Your task to perform on an android device: set default search engine in the chrome app Image 0: 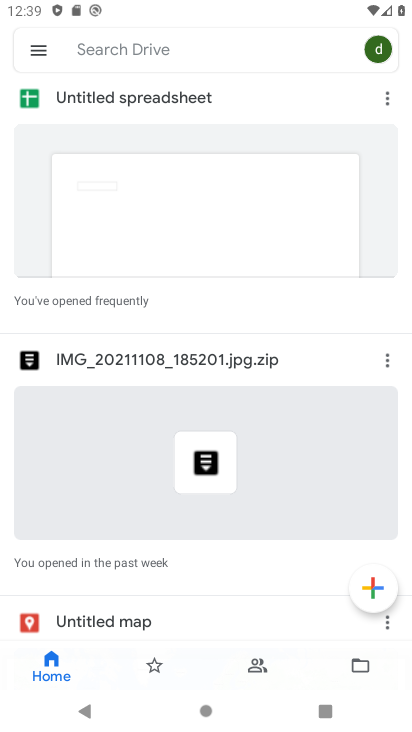
Step 0: press back button
Your task to perform on an android device: set default search engine in the chrome app Image 1: 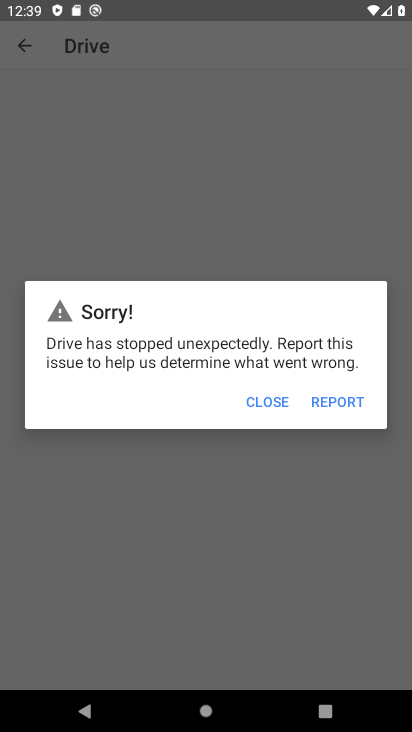
Step 1: click (270, 405)
Your task to perform on an android device: set default search engine in the chrome app Image 2: 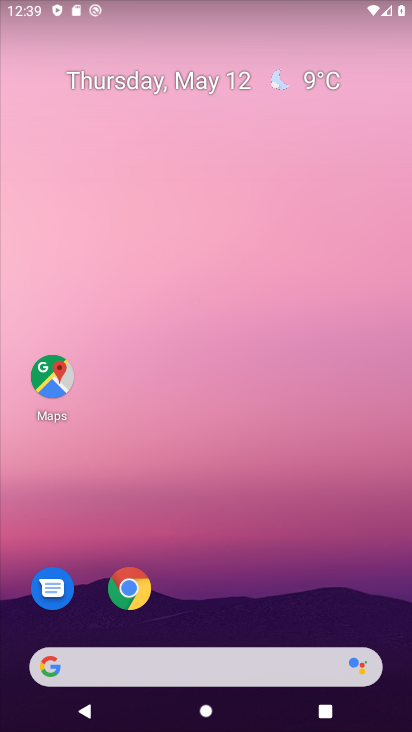
Step 2: drag from (307, 640) to (242, 304)
Your task to perform on an android device: set default search engine in the chrome app Image 3: 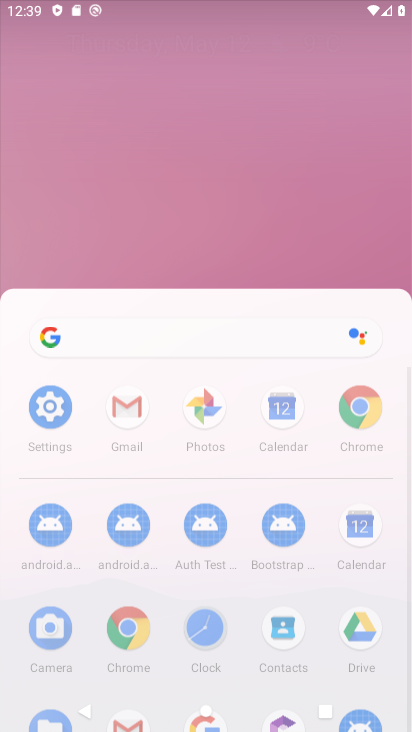
Step 3: click (244, 305)
Your task to perform on an android device: set default search engine in the chrome app Image 4: 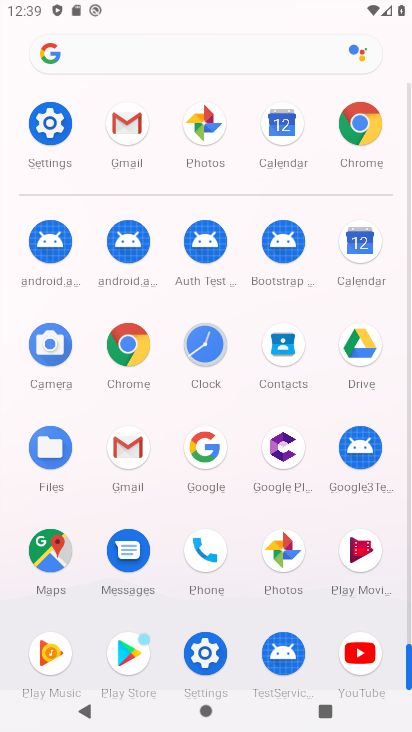
Step 4: click (360, 118)
Your task to perform on an android device: set default search engine in the chrome app Image 5: 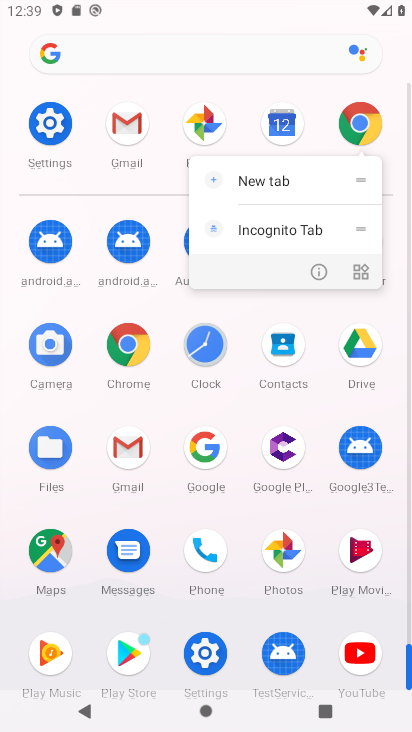
Step 5: click (361, 116)
Your task to perform on an android device: set default search engine in the chrome app Image 6: 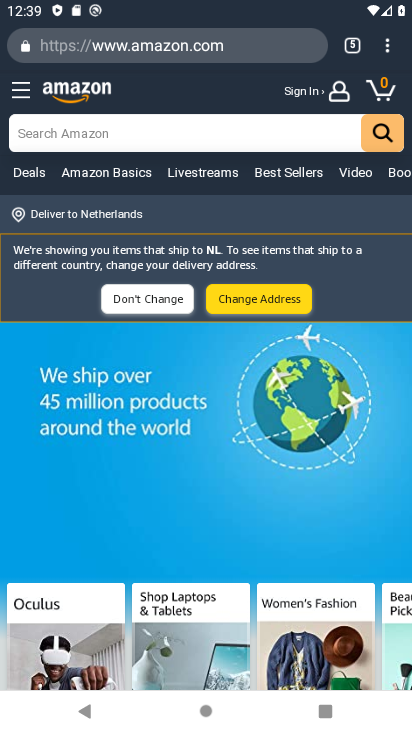
Step 6: click (389, 50)
Your task to perform on an android device: set default search engine in the chrome app Image 7: 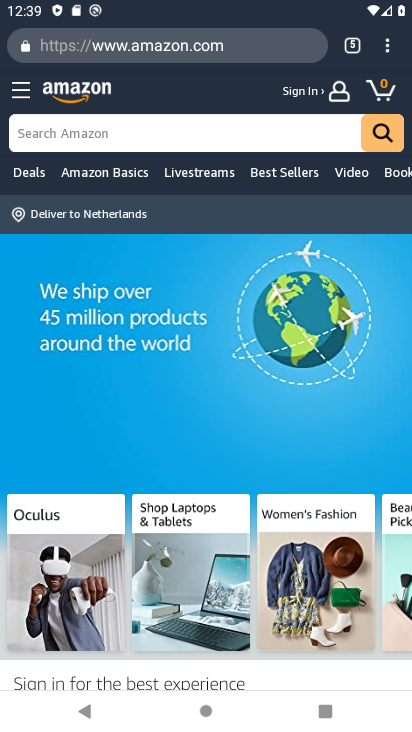
Step 7: drag from (386, 44) to (218, 509)
Your task to perform on an android device: set default search engine in the chrome app Image 8: 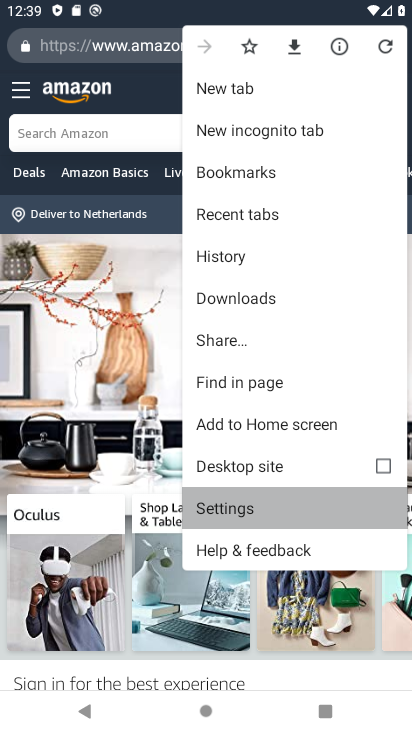
Step 8: click (218, 509)
Your task to perform on an android device: set default search engine in the chrome app Image 9: 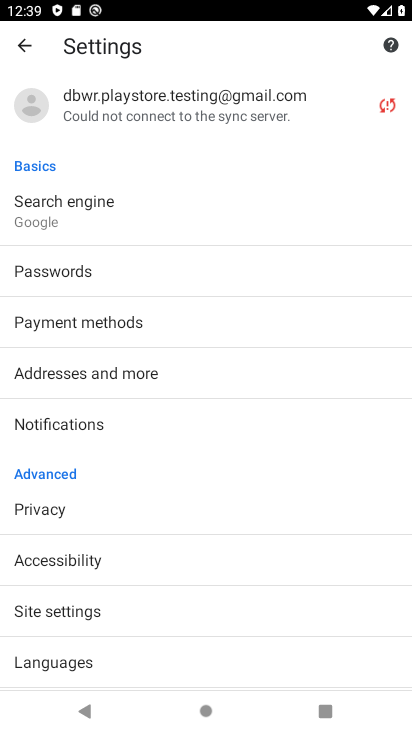
Step 9: click (38, 609)
Your task to perform on an android device: set default search engine in the chrome app Image 10: 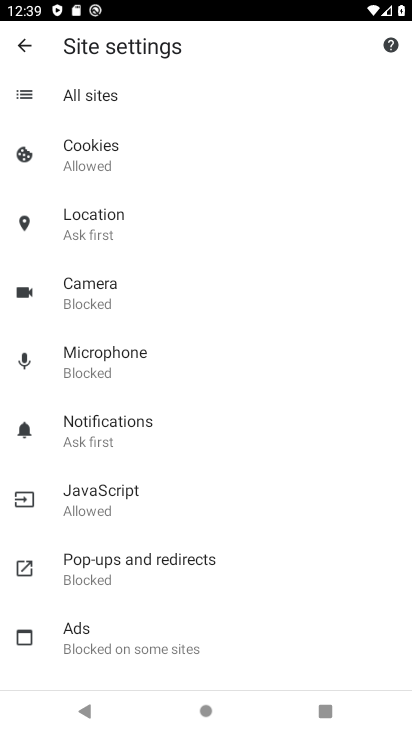
Step 10: click (24, 48)
Your task to perform on an android device: set default search engine in the chrome app Image 11: 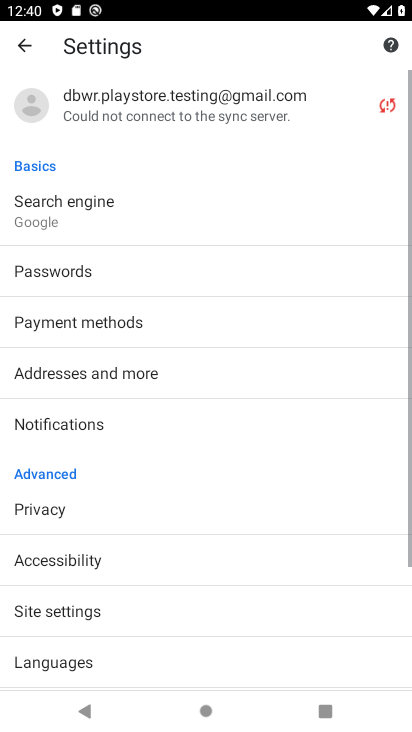
Step 11: click (53, 212)
Your task to perform on an android device: set default search engine in the chrome app Image 12: 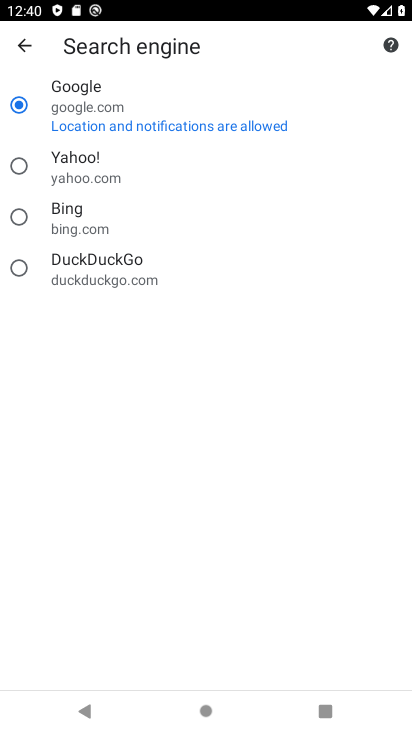
Step 12: click (35, 174)
Your task to perform on an android device: set default search engine in the chrome app Image 13: 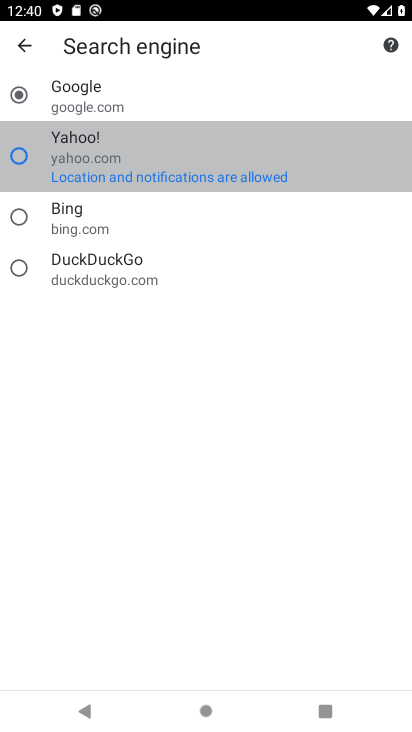
Step 13: click (22, 169)
Your task to perform on an android device: set default search engine in the chrome app Image 14: 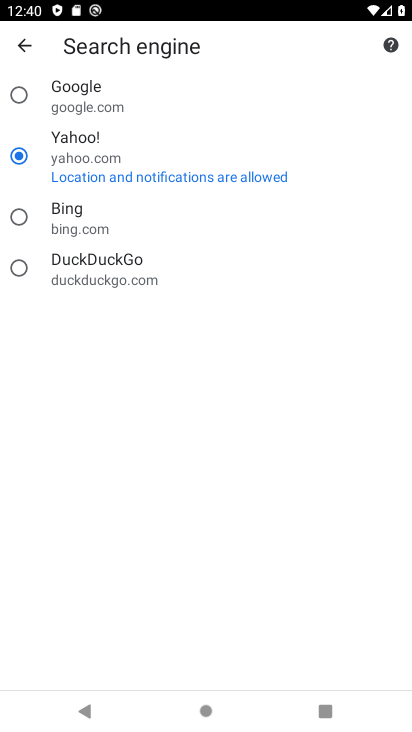
Step 14: click (20, 99)
Your task to perform on an android device: set default search engine in the chrome app Image 15: 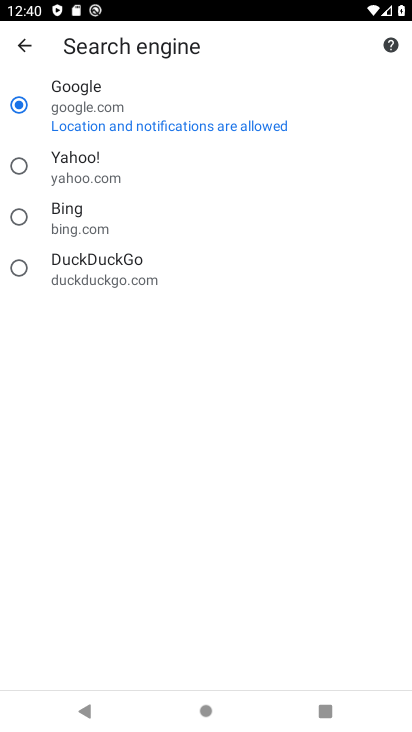
Step 15: task complete